Your task to perform on an android device: Go to calendar. Show me events next week Image 0: 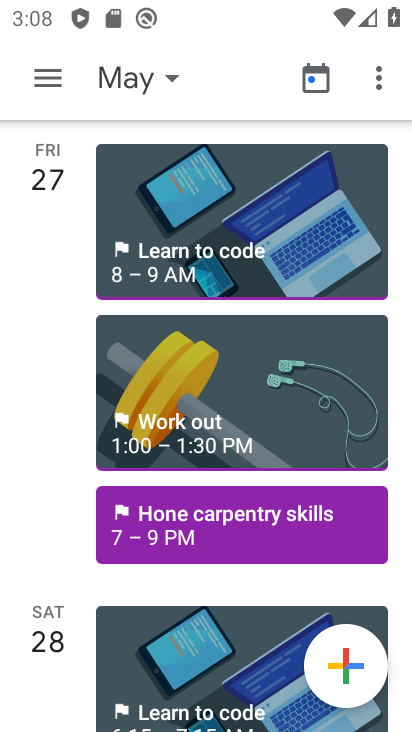
Step 0: press back button
Your task to perform on an android device: Go to calendar. Show me events next week Image 1: 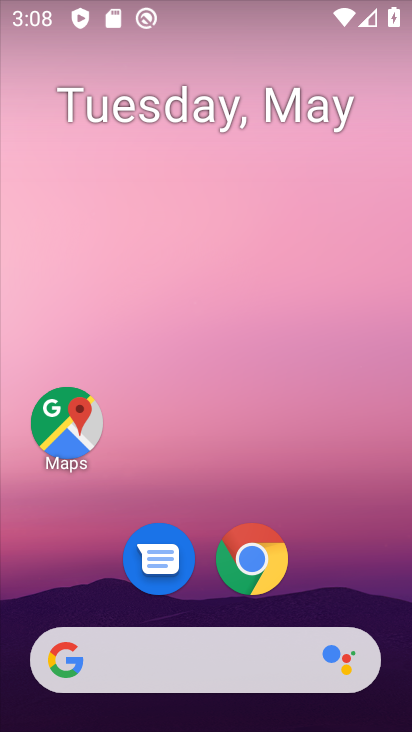
Step 1: drag from (337, 549) to (280, 100)
Your task to perform on an android device: Go to calendar. Show me events next week Image 2: 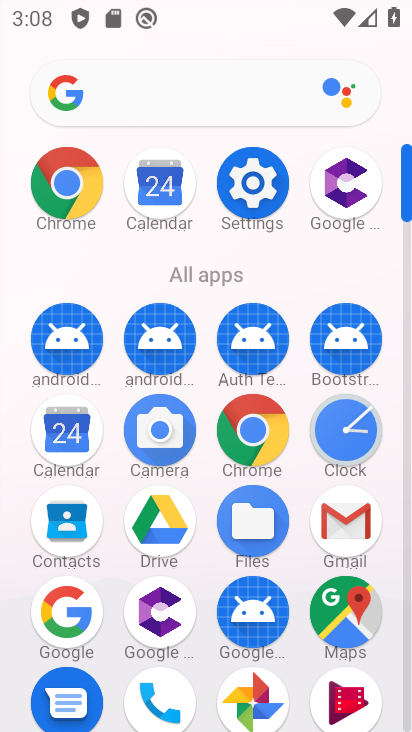
Step 2: click (70, 434)
Your task to perform on an android device: Go to calendar. Show me events next week Image 3: 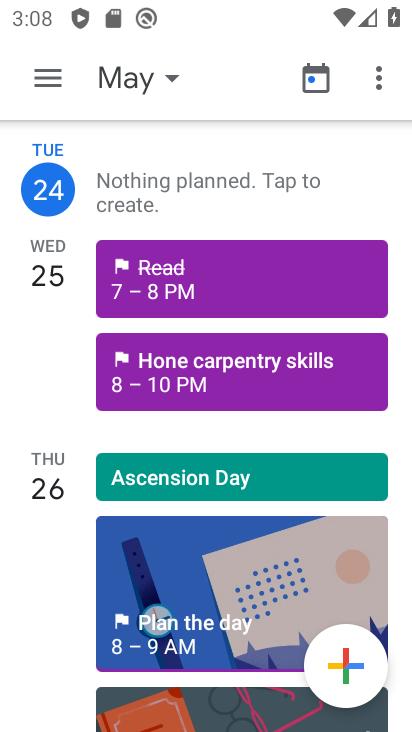
Step 3: click (174, 78)
Your task to perform on an android device: Go to calendar. Show me events next week Image 4: 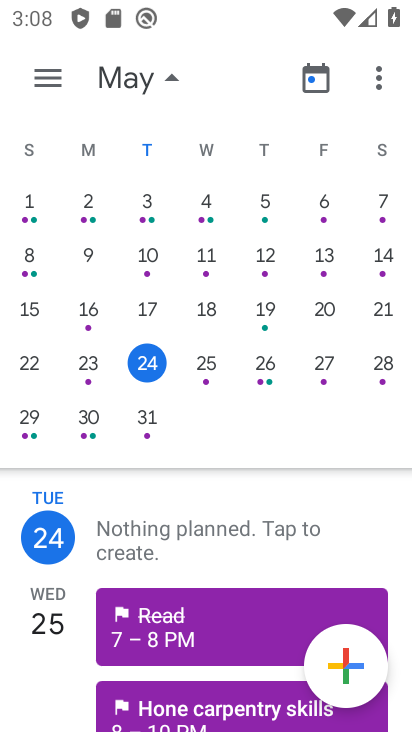
Step 4: click (89, 427)
Your task to perform on an android device: Go to calendar. Show me events next week Image 5: 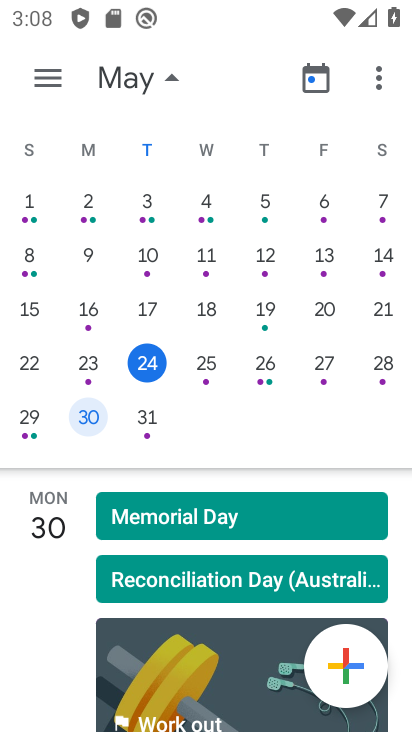
Step 5: click (41, 77)
Your task to perform on an android device: Go to calendar. Show me events next week Image 6: 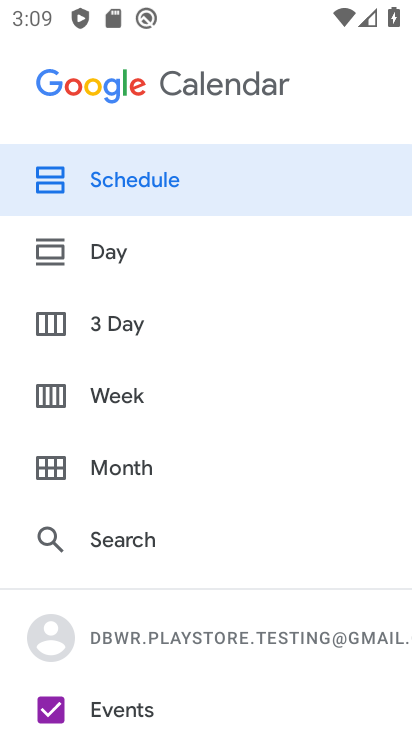
Step 6: click (120, 394)
Your task to perform on an android device: Go to calendar. Show me events next week Image 7: 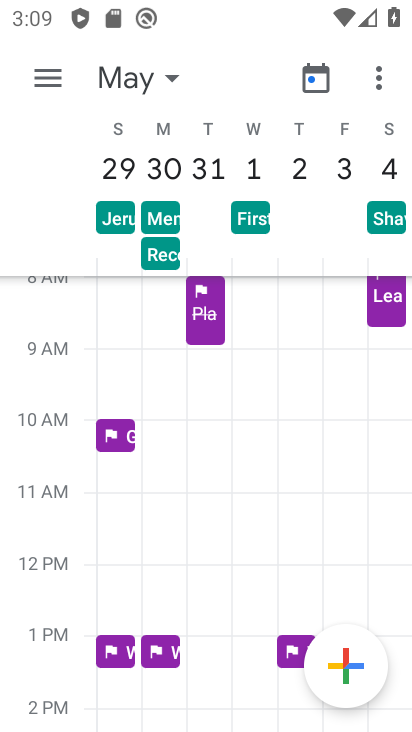
Step 7: task complete